Your task to perform on an android device: Open notification settings Image 0: 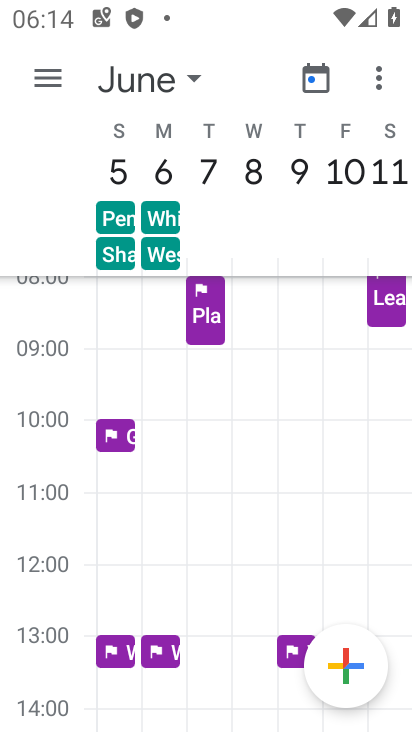
Step 0: press home button
Your task to perform on an android device: Open notification settings Image 1: 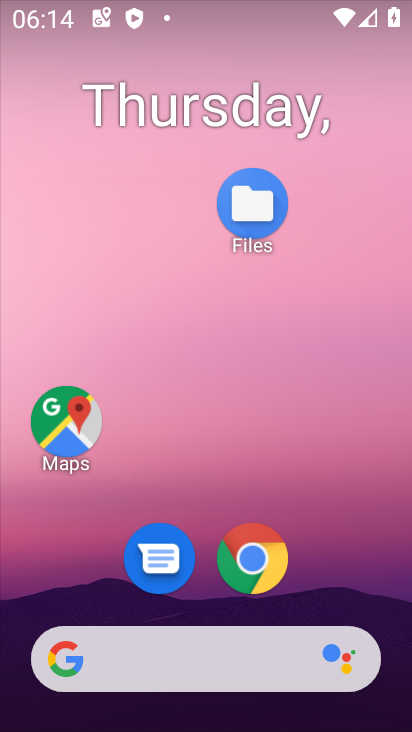
Step 1: drag from (304, 567) to (319, 83)
Your task to perform on an android device: Open notification settings Image 2: 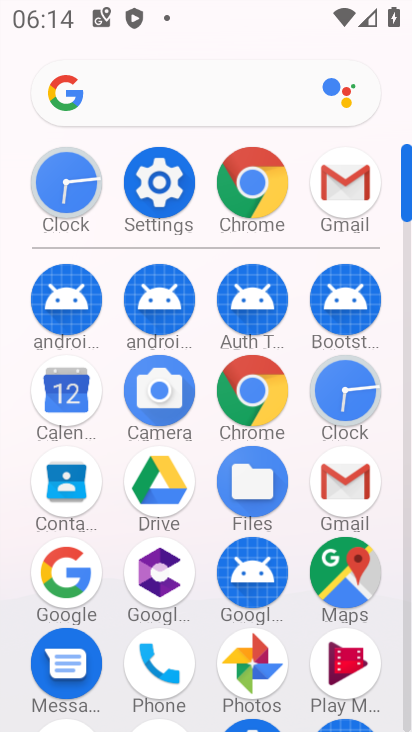
Step 2: click (161, 188)
Your task to perform on an android device: Open notification settings Image 3: 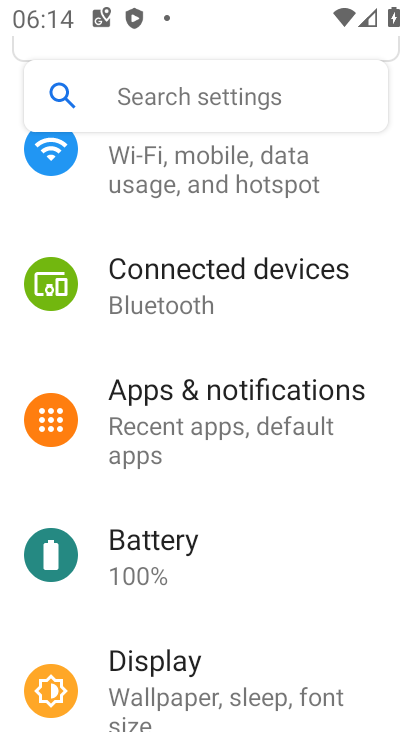
Step 3: click (187, 420)
Your task to perform on an android device: Open notification settings Image 4: 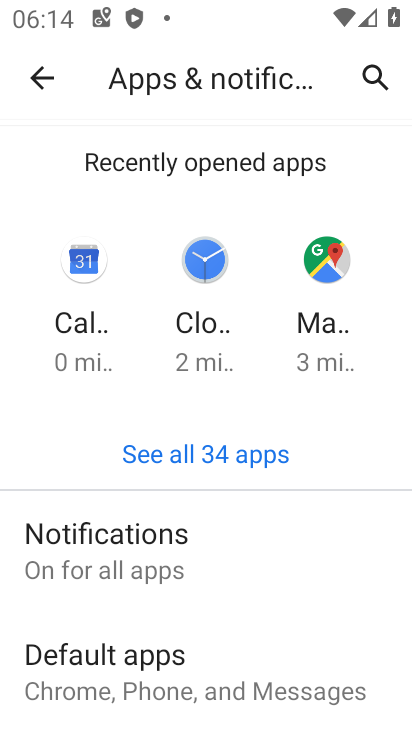
Step 4: click (147, 572)
Your task to perform on an android device: Open notification settings Image 5: 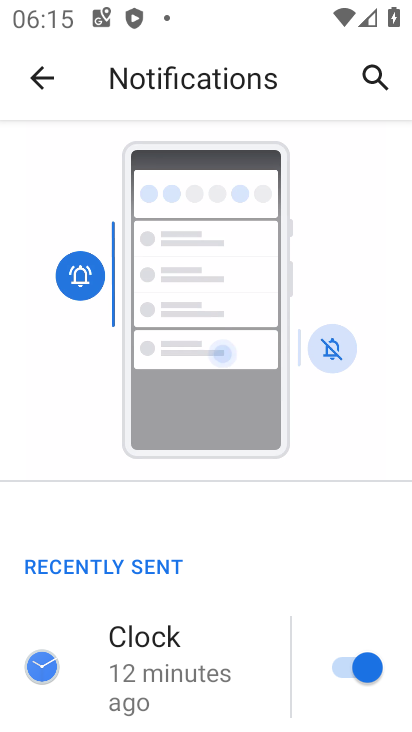
Step 5: task complete